Your task to perform on an android device: Open wifi settings Image 0: 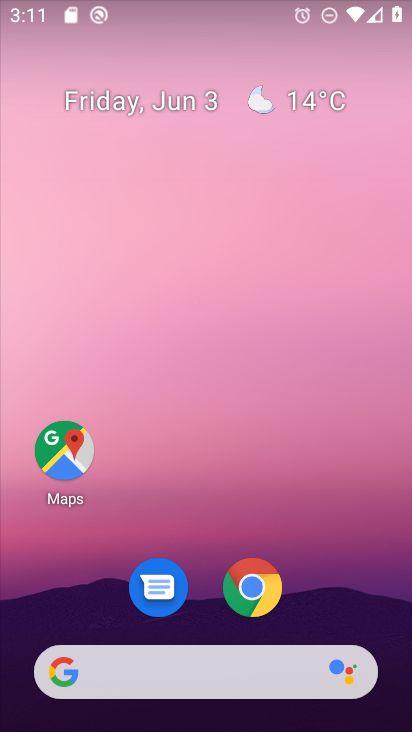
Step 0: drag from (217, 717) to (235, 148)
Your task to perform on an android device: Open wifi settings Image 1: 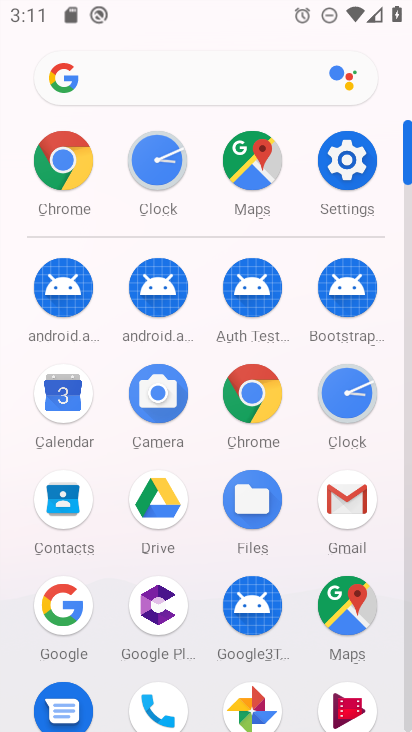
Step 1: click (350, 156)
Your task to perform on an android device: Open wifi settings Image 2: 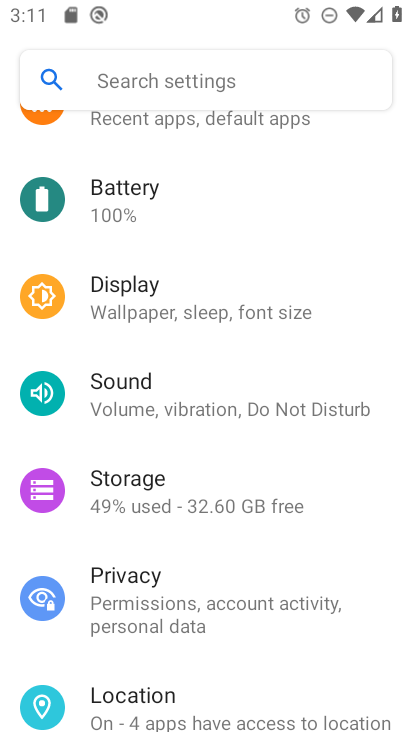
Step 2: drag from (321, 161) to (273, 655)
Your task to perform on an android device: Open wifi settings Image 3: 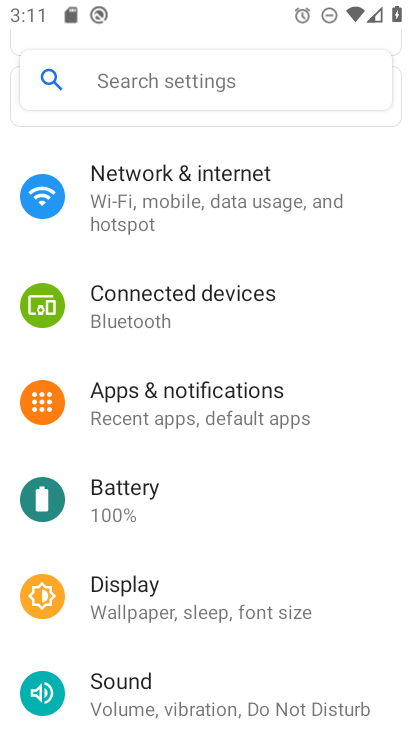
Step 3: click (165, 203)
Your task to perform on an android device: Open wifi settings Image 4: 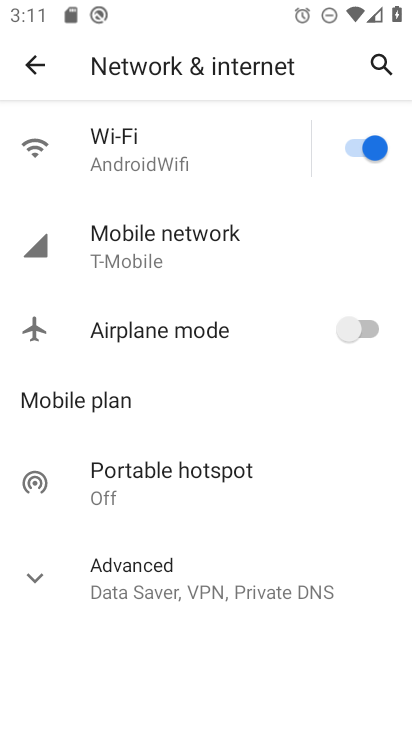
Step 4: click (102, 159)
Your task to perform on an android device: Open wifi settings Image 5: 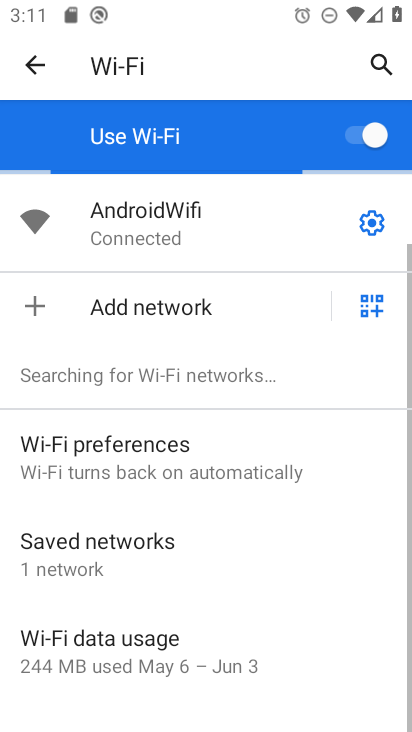
Step 5: task complete